Your task to perform on an android device: Go to eBay Image 0: 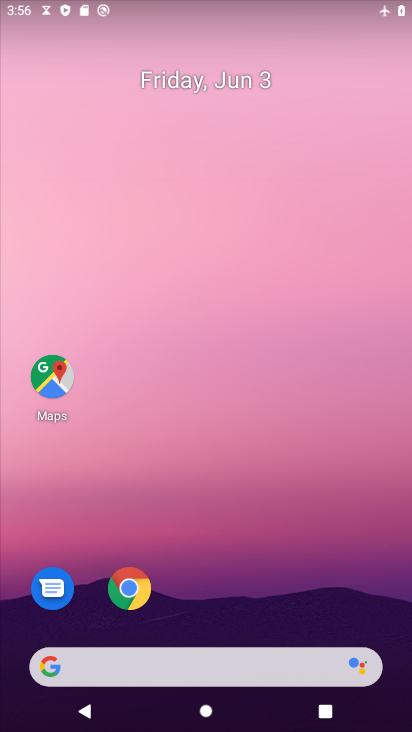
Step 0: drag from (298, 10) to (281, 389)
Your task to perform on an android device: Go to eBay Image 1: 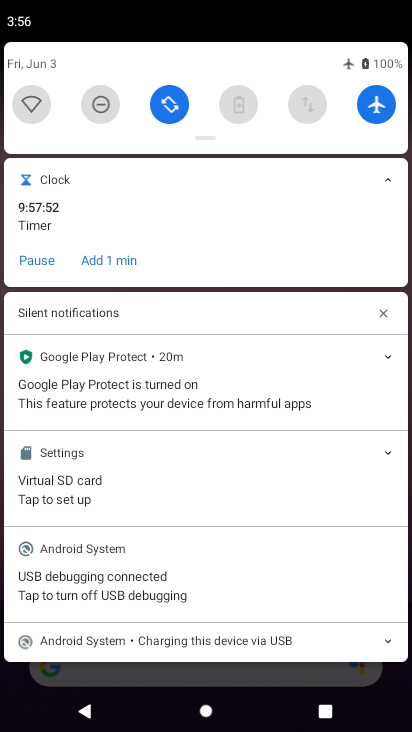
Step 1: click (374, 122)
Your task to perform on an android device: Go to eBay Image 2: 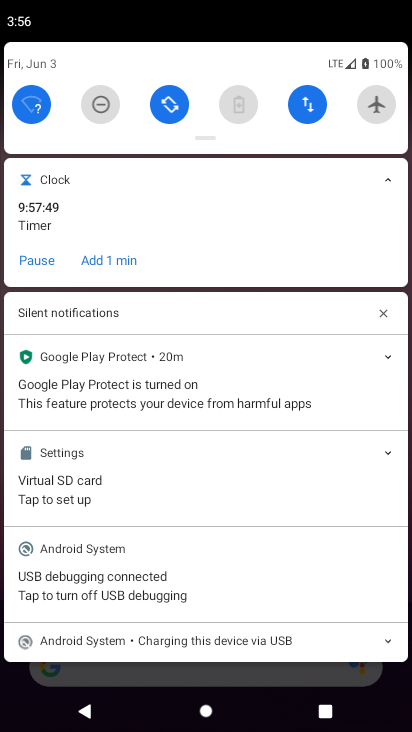
Step 2: press home button
Your task to perform on an android device: Go to eBay Image 3: 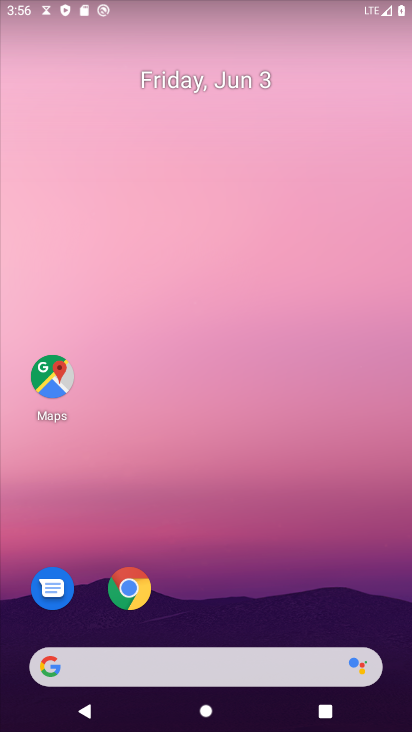
Step 3: click (138, 586)
Your task to perform on an android device: Go to eBay Image 4: 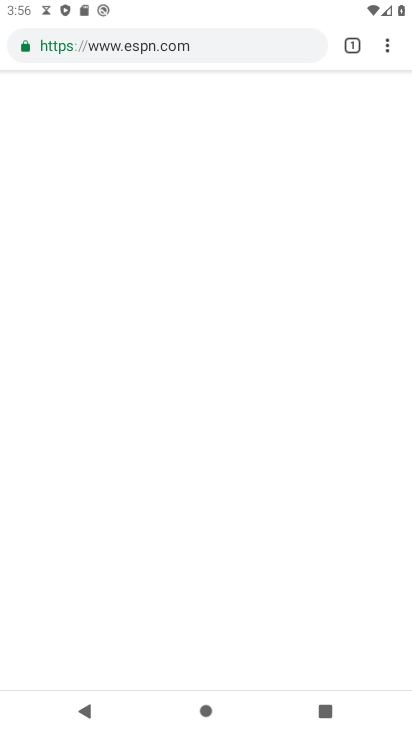
Step 4: click (354, 43)
Your task to perform on an android device: Go to eBay Image 5: 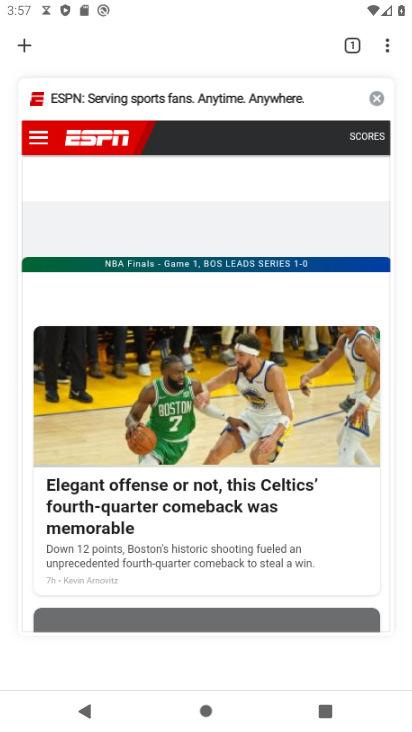
Step 5: click (29, 52)
Your task to perform on an android device: Go to eBay Image 6: 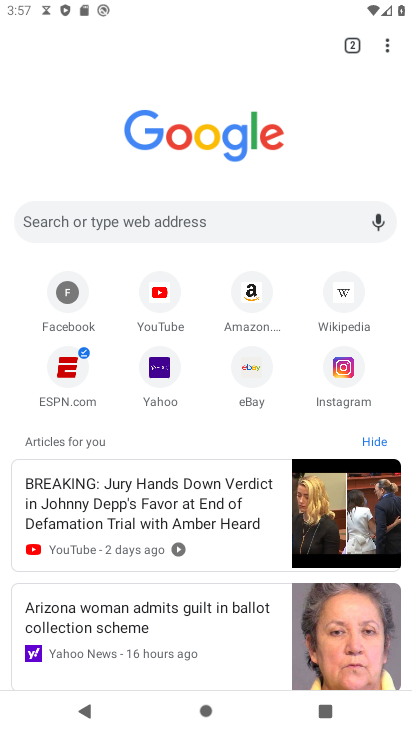
Step 6: click (258, 369)
Your task to perform on an android device: Go to eBay Image 7: 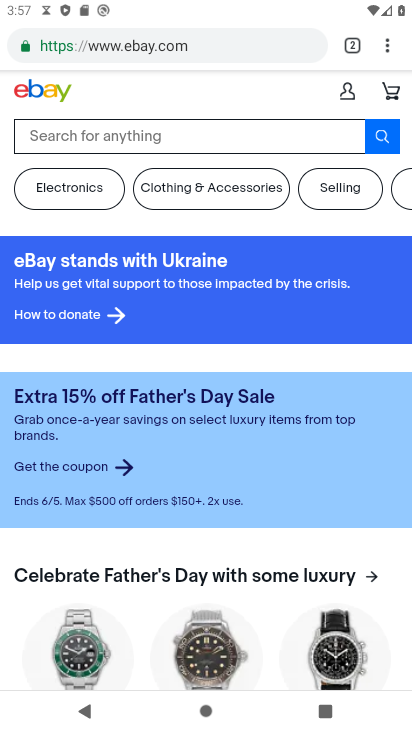
Step 7: task complete